Your task to perform on an android device: turn off javascript in the chrome app Image 0: 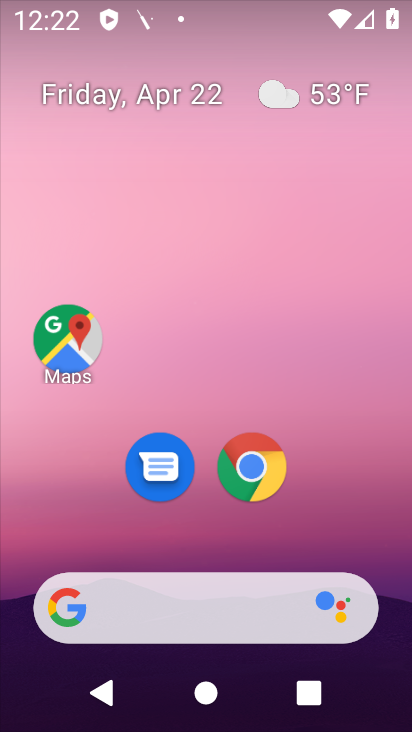
Step 0: click (252, 461)
Your task to perform on an android device: turn off javascript in the chrome app Image 1: 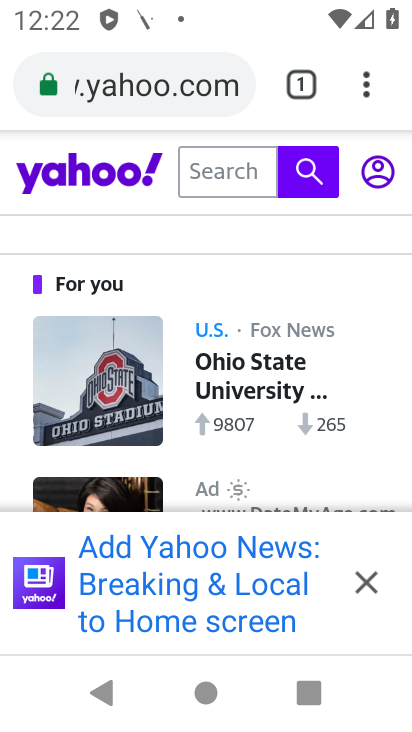
Step 1: click (366, 95)
Your task to perform on an android device: turn off javascript in the chrome app Image 2: 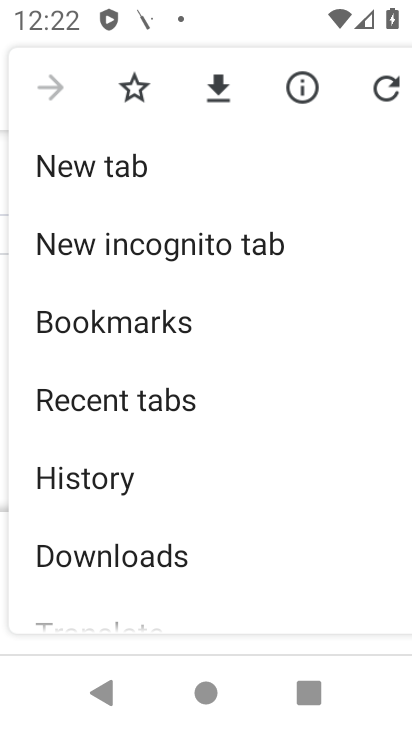
Step 2: drag from (251, 488) to (300, 203)
Your task to perform on an android device: turn off javascript in the chrome app Image 3: 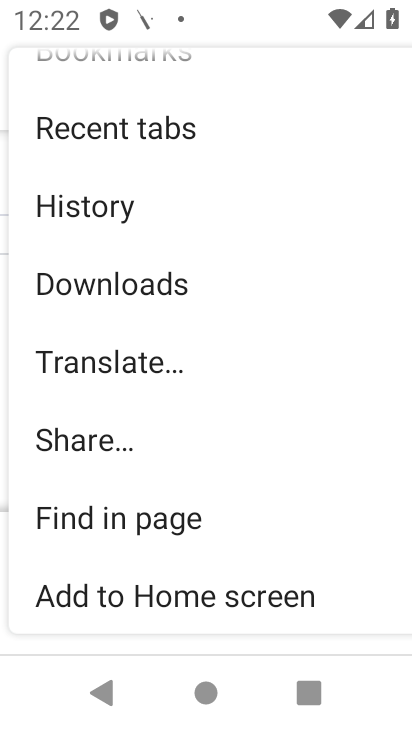
Step 3: drag from (291, 546) to (271, 238)
Your task to perform on an android device: turn off javascript in the chrome app Image 4: 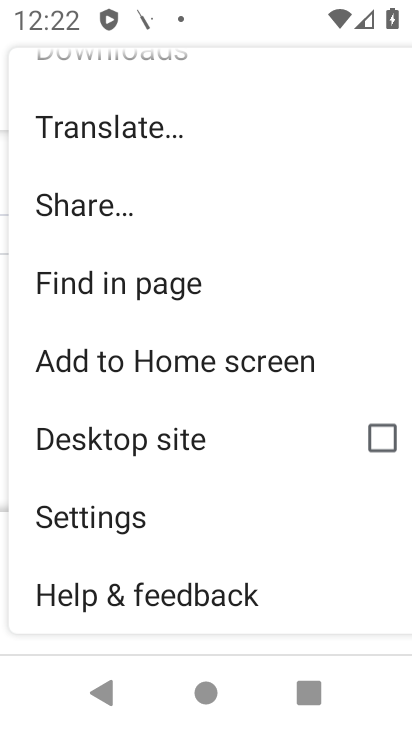
Step 4: click (81, 517)
Your task to perform on an android device: turn off javascript in the chrome app Image 5: 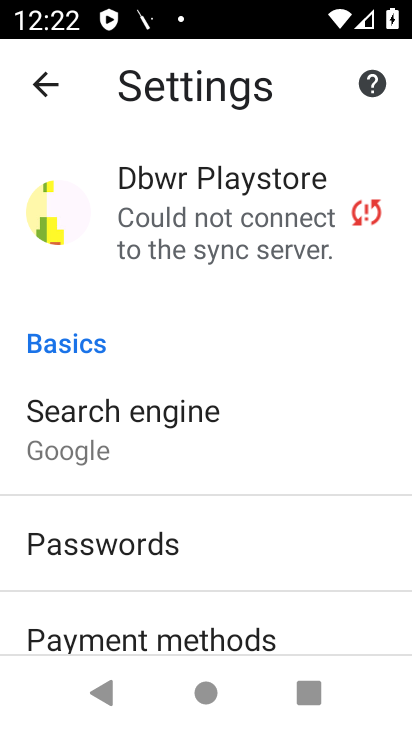
Step 5: drag from (250, 528) to (284, 246)
Your task to perform on an android device: turn off javascript in the chrome app Image 6: 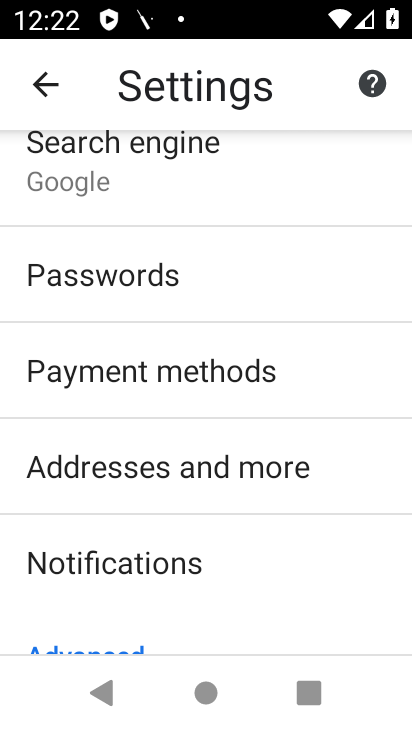
Step 6: drag from (307, 514) to (314, 242)
Your task to perform on an android device: turn off javascript in the chrome app Image 7: 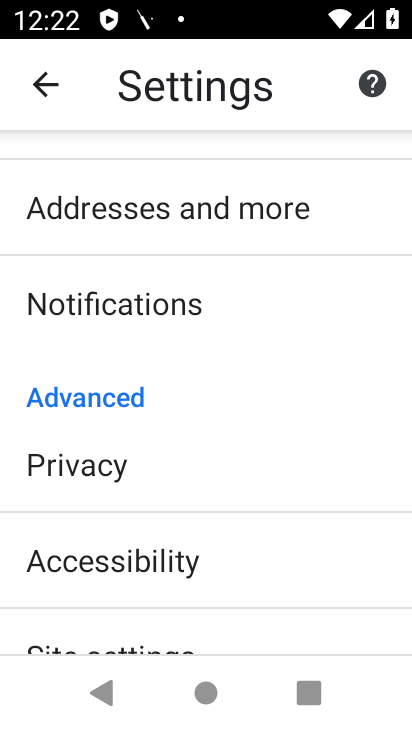
Step 7: drag from (290, 511) to (318, 178)
Your task to perform on an android device: turn off javascript in the chrome app Image 8: 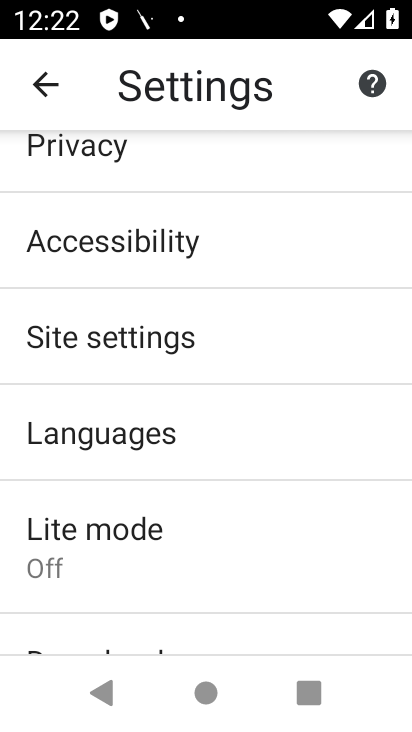
Step 8: click (97, 345)
Your task to perform on an android device: turn off javascript in the chrome app Image 9: 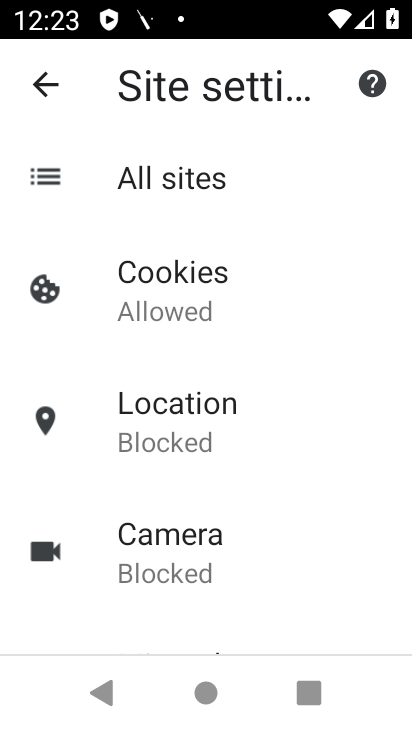
Step 9: drag from (265, 518) to (287, 224)
Your task to perform on an android device: turn off javascript in the chrome app Image 10: 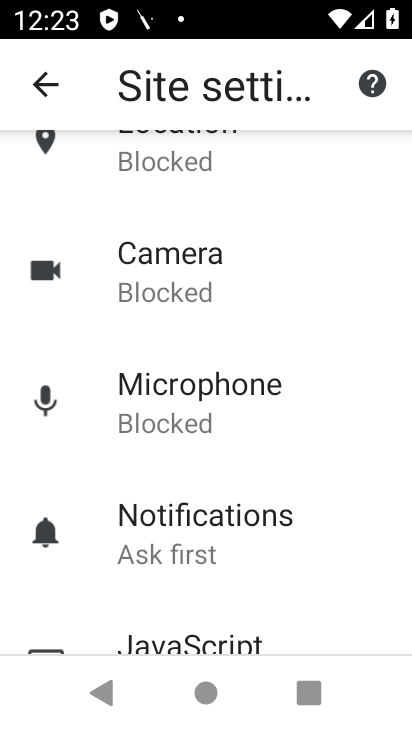
Step 10: drag from (289, 527) to (311, 239)
Your task to perform on an android device: turn off javascript in the chrome app Image 11: 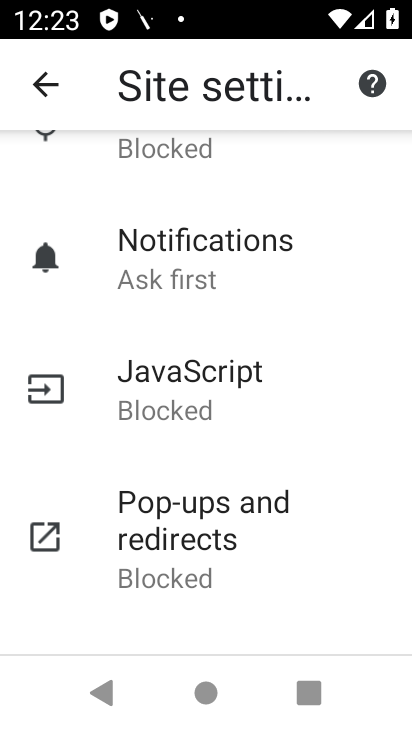
Step 11: click (137, 389)
Your task to perform on an android device: turn off javascript in the chrome app Image 12: 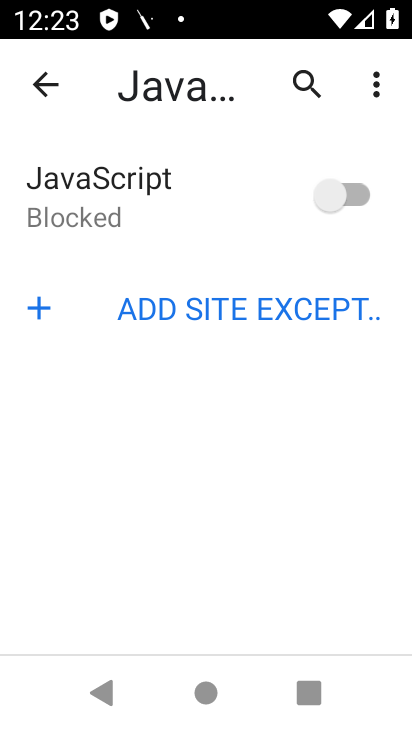
Step 12: task complete